Your task to perform on an android device: Open wifi settings Image 0: 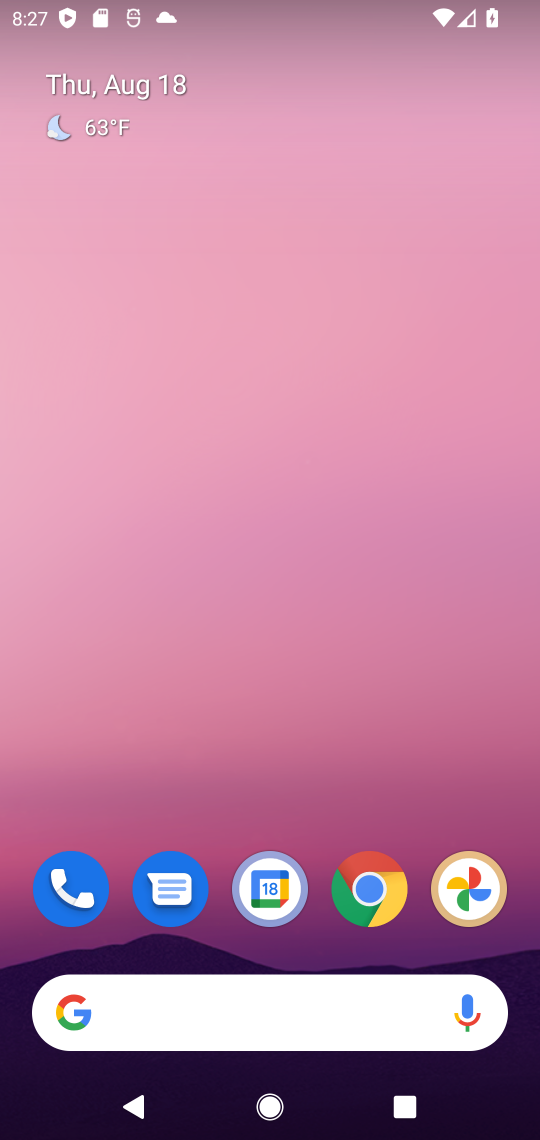
Step 0: press home button
Your task to perform on an android device: Open wifi settings Image 1: 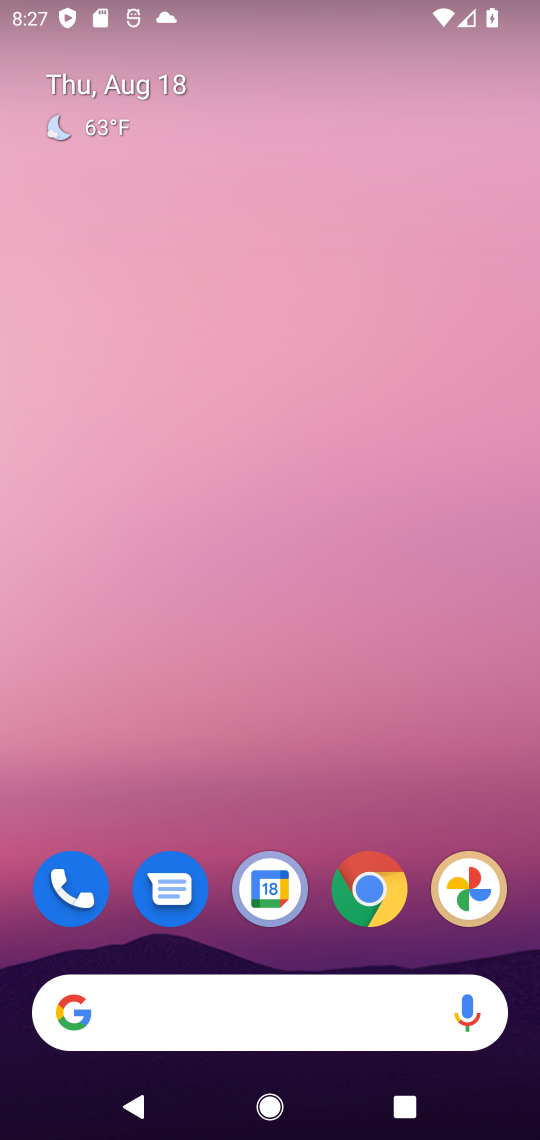
Step 1: drag from (282, 799) to (343, 162)
Your task to perform on an android device: Open wifi settings Image 2: 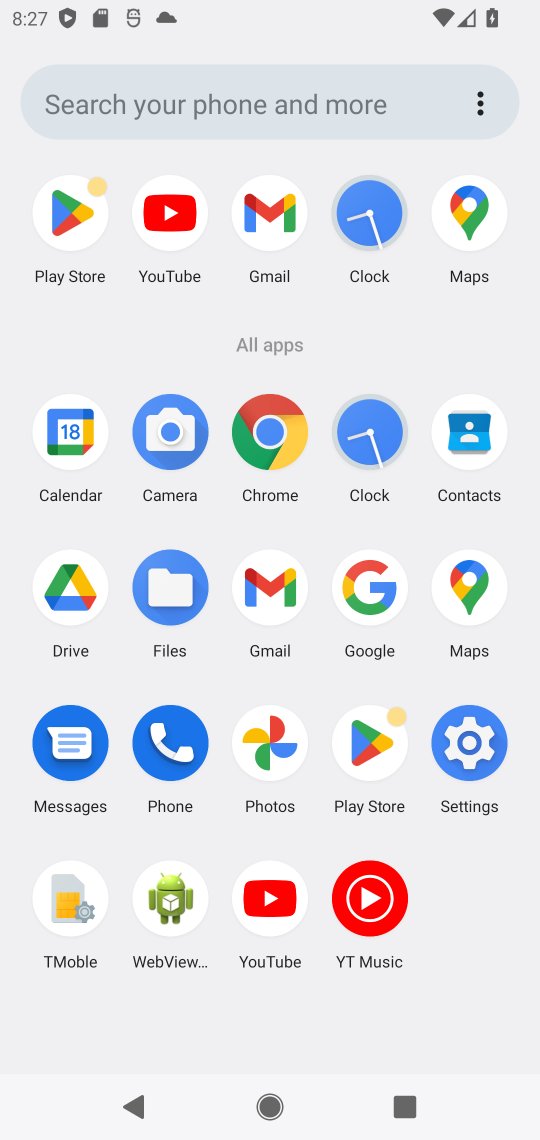
Step 2: click (449, 754)
Your task to perform on an android device: Open wifi settings Image 3: 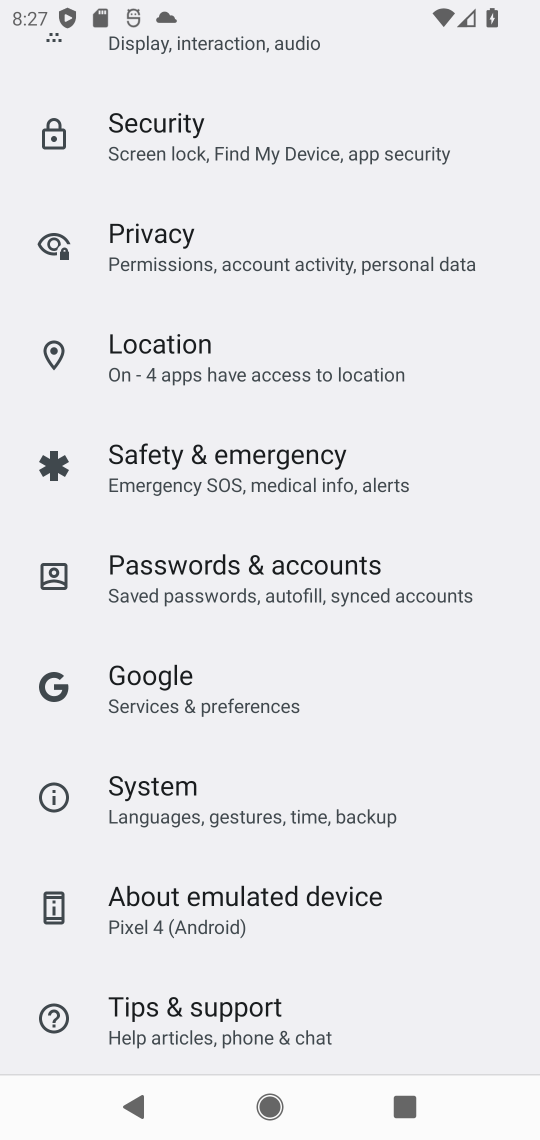
Step 3: drag from (225, 198) to (153, 749)
Your task to perform on an android device: Open wifi settings Image 4: 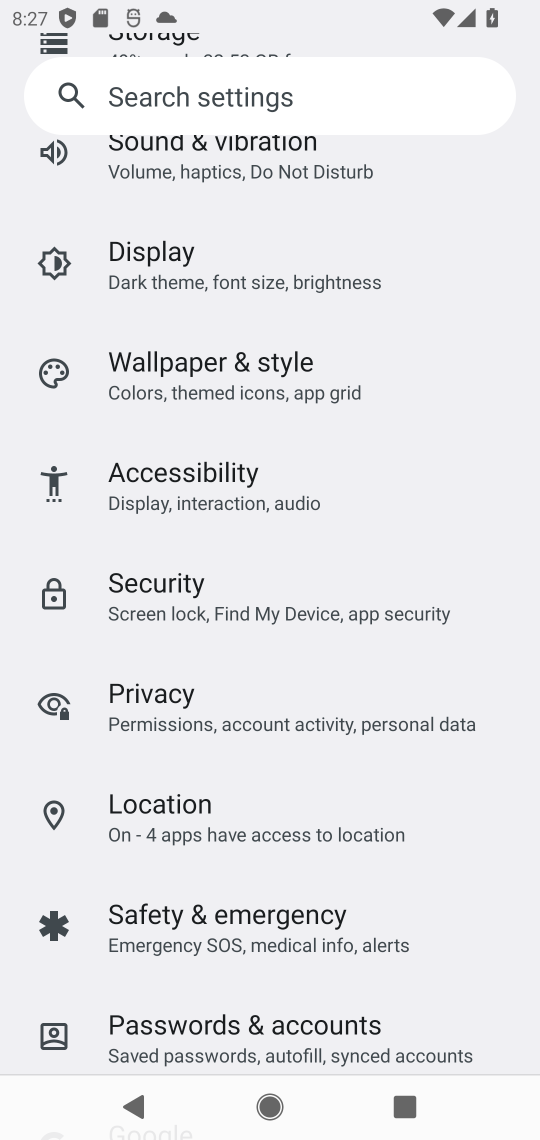
Step 4: drag from (187, 202) to (88, 1138)
Your task to perform on an android device: Open wifi settings Image 5: 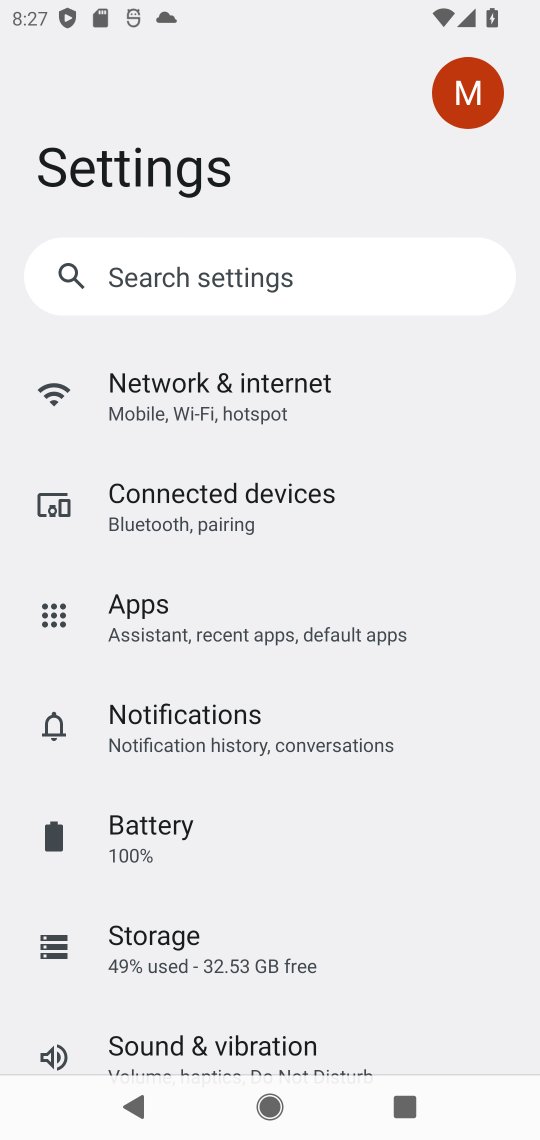
Step 5: click (197, 400)
Your task to perform on an android device: Open wifi settings Image 6: 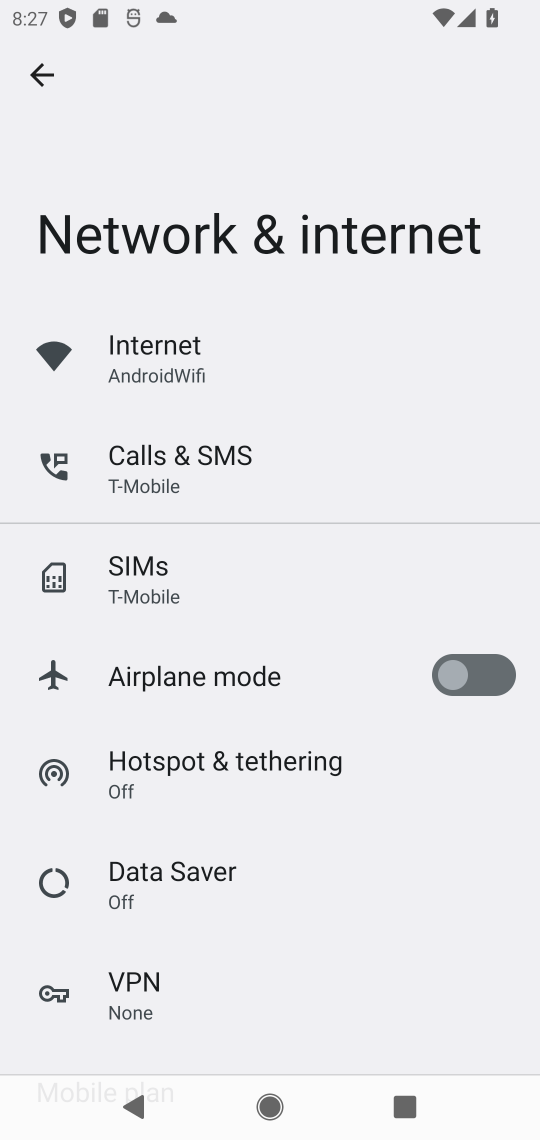
Step 6: click (144, 375)
Your task to perform on an android device: Open wifi settings Image 7: 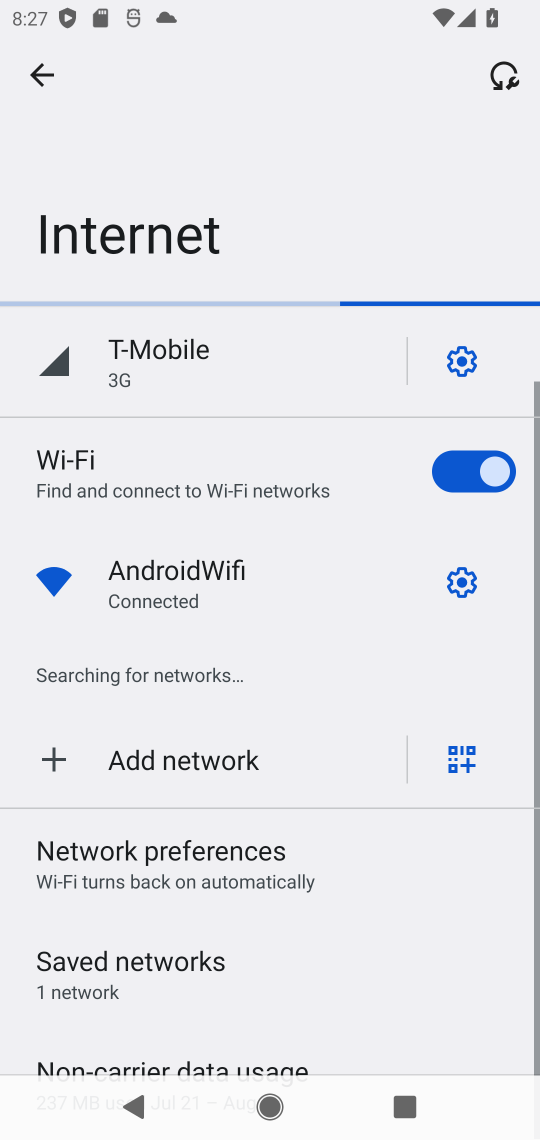
Step 7: task complete